Your task to perform on an android device: open app "LiveIn - Share Your Moment" (install if not already installed) Image 0: 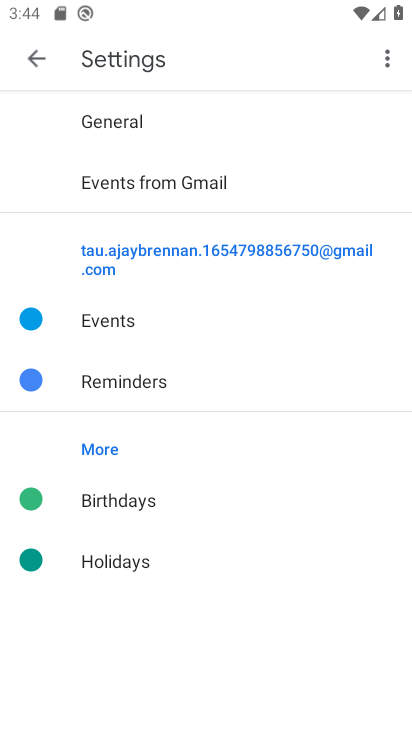
Step 0: press home button
Your task to perform on an android device: open app "LiveIn - Share Your Moment" (install if not already installed) Image 1: 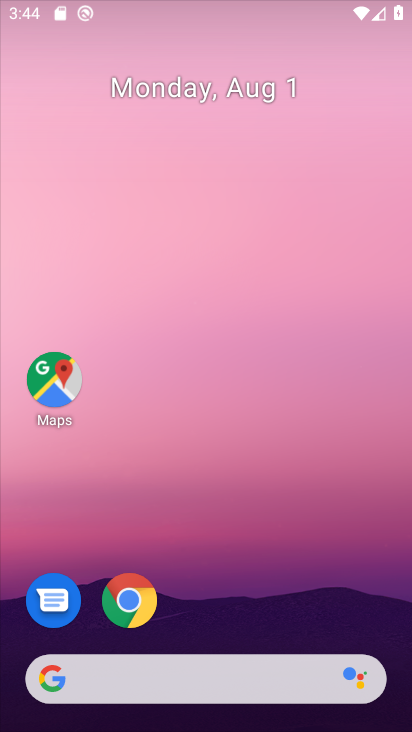
Step 1: drag from (281, 545) to (234, 63)
Your task to perform on an android device: open app "LiveIn - Share Your Moment" (install if not already installed) Image 2: 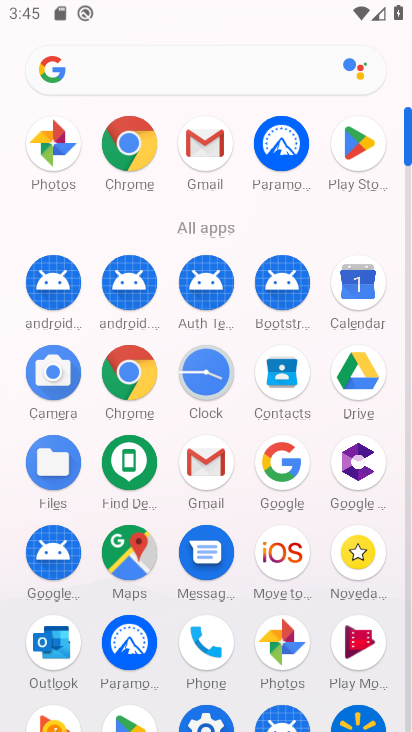
Step 2: click (361, 147)
Your task to perform on an android device: open app "LiveIn - Share Your Moment" (install if not already installed) Image 3: 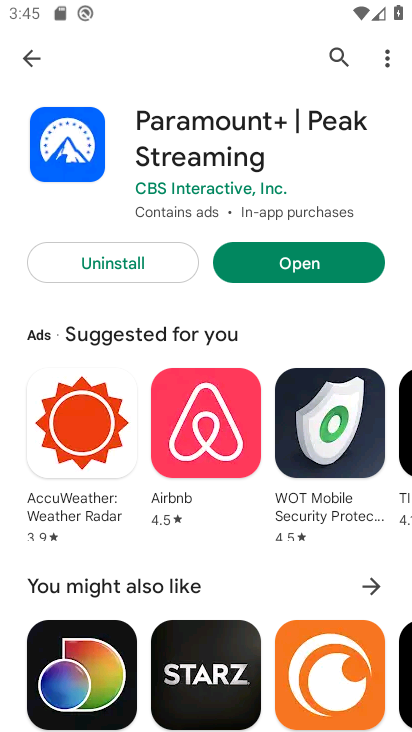
Step 3: click (277, 67)
Your task to perform on an android device: open app "LiveIn - Share Your Moment" (install if not already installed) Image 4: 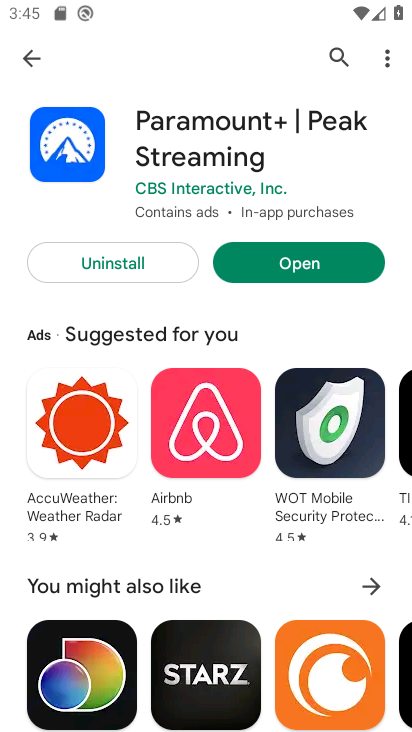
Step 4: click (341, 56)
Your task to perform on an android device: open app "LiveIn - Share Your Moment" (install if not already installed) Image 5: 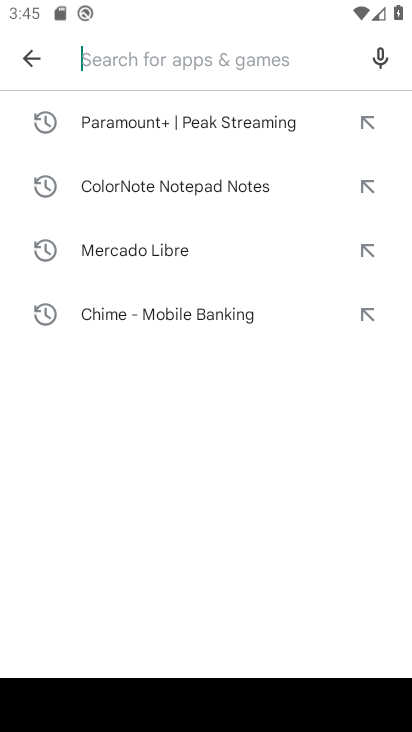
Step 5: type "Liveln - Share Your Moment"
Your task to perform on an android device: open app "LiveIn - Share Your Moment" (install if not already installed) Image 6: 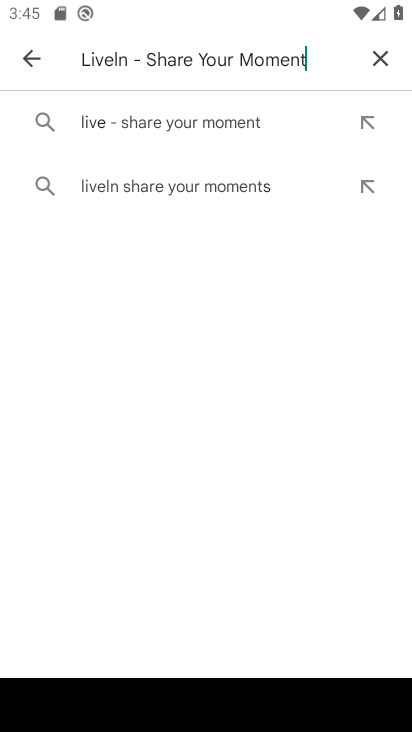
Step 6: press enter
Your task to perform on an android device: open app "LiveIn - Share Your Moment" (install if not already installed) Image 7: 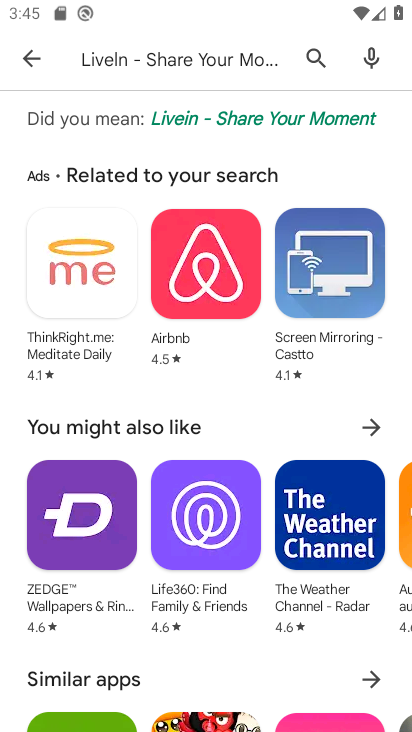
Step 7: click (323, 120)
Your task to perform on an android device: open app "LiveIn - Share Your Moment" (install if not already installed) Image 8: 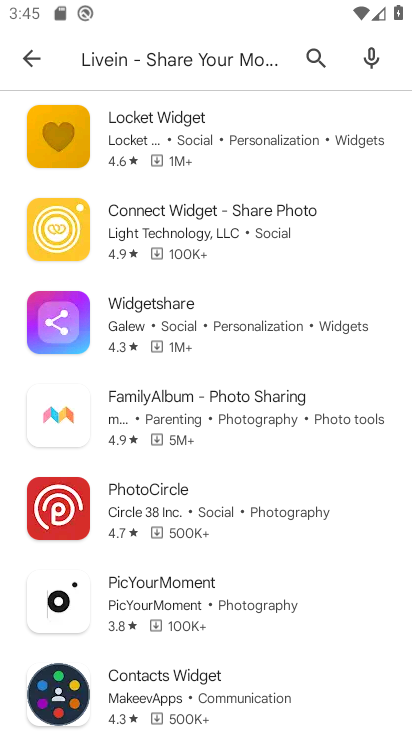
Step 8: task complete